Your task to perform on an android device: Open Yahoo.com Image 0: 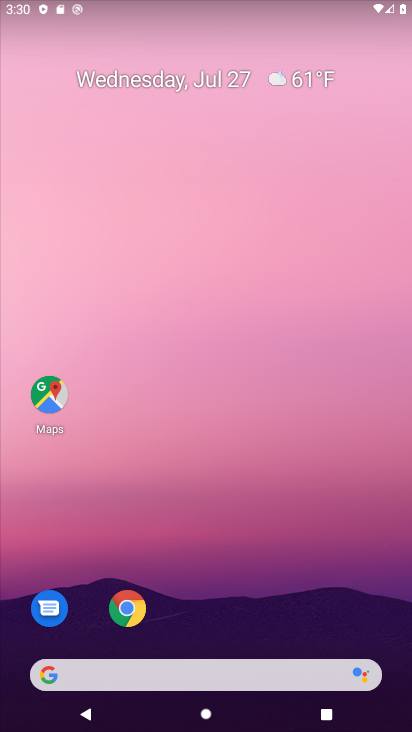
Step 0: click (130, 608)
Your task to perform on an android device: Open Yahoo.com Image 1: 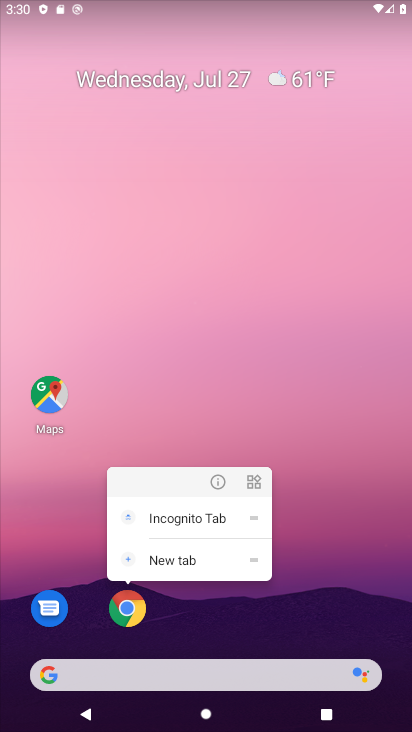
Step 1: click (129, 608)
Your task to perform on an android device: Open Yahoo.com Image 2: 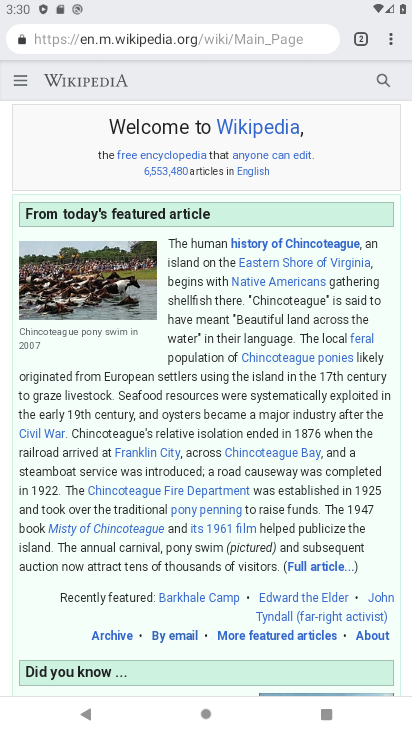
Step 2: click (393, 41)
Your task to perform on an android device: Open Yahoo.com Image 3: 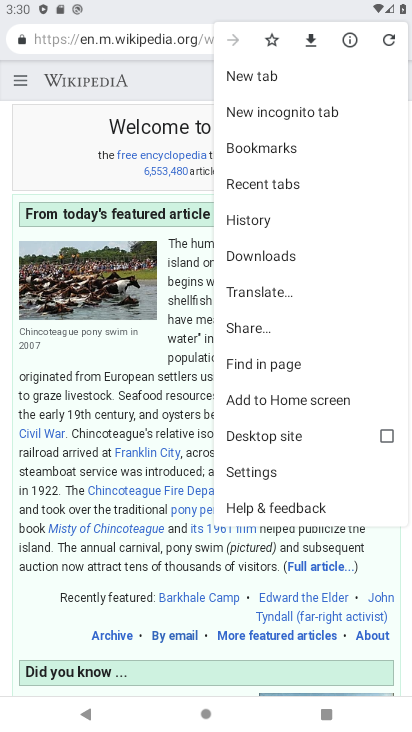
Step 3: click (259, 74)
Your task to perform on an android device: Open Yahoo.com Image 4: 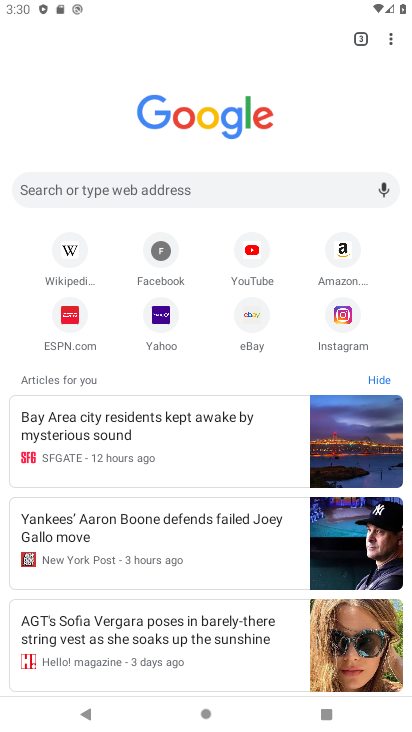
Step 4: click (159, 318)
Your task to perform on an android device: Open Yahoo.com Image 5: 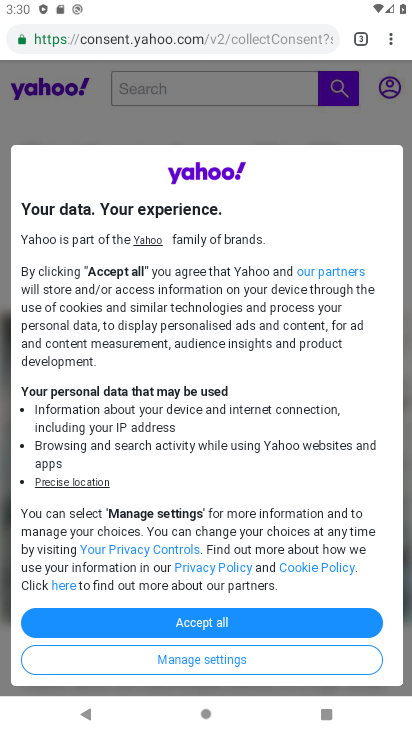
Step 5: click (201, 621)
Your task to perform on an android device: Open Yahoo.com Image 6: 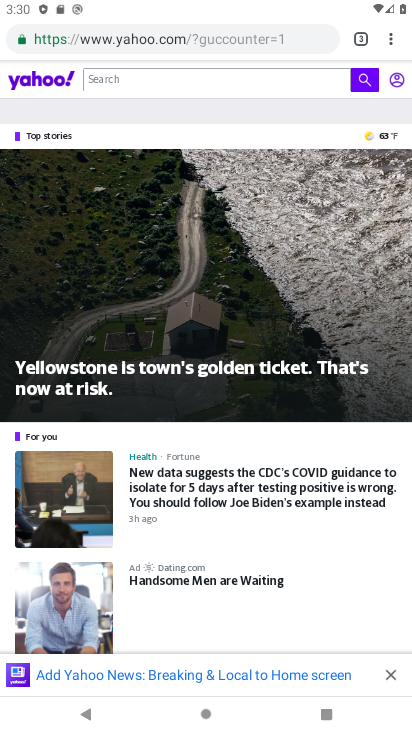
Step 6: task complete